Your task to perform on an android device: Show me recent news Image 0: 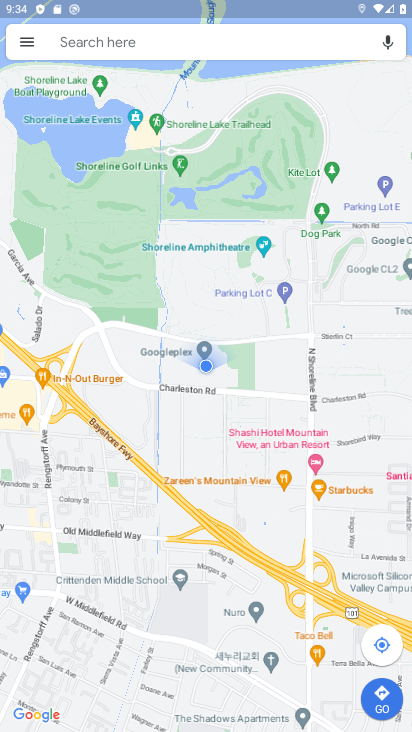
Step 0: press home button
Your task to perform on an android device: Show me recent news Image 1: 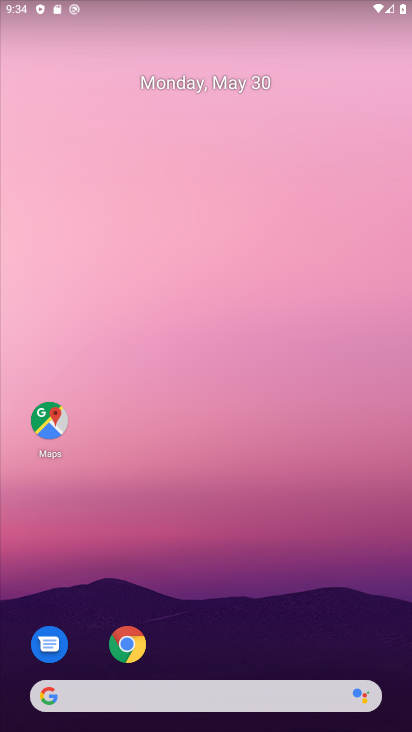
Step 1: task complete